Your task to perform on an android device: change the clock display to show seconds Image 0: 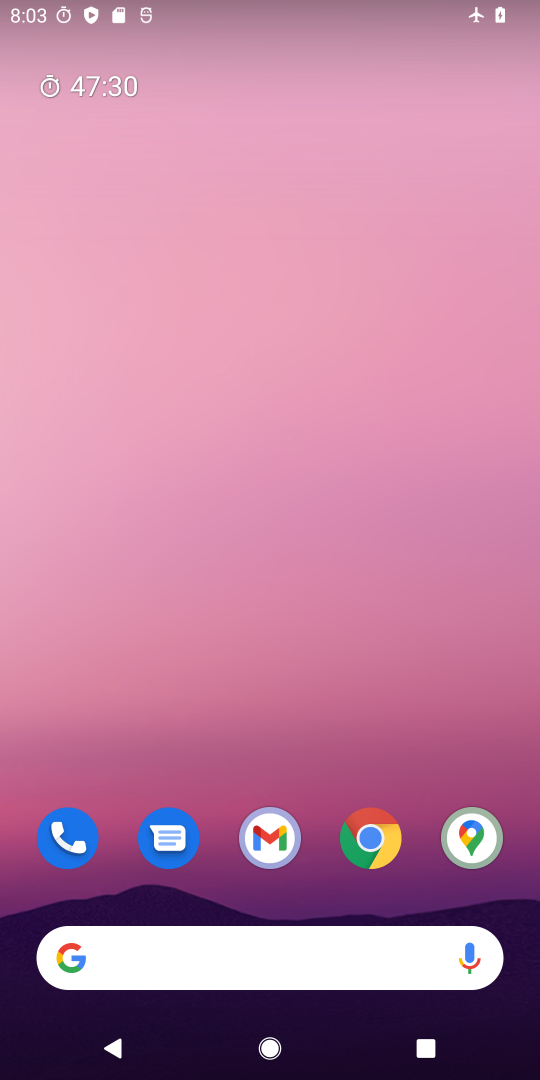
Step 0: drag from (307, 728) to (257, 8)
Your task to perform on an android device: change the clock display to show seconds Image 1: 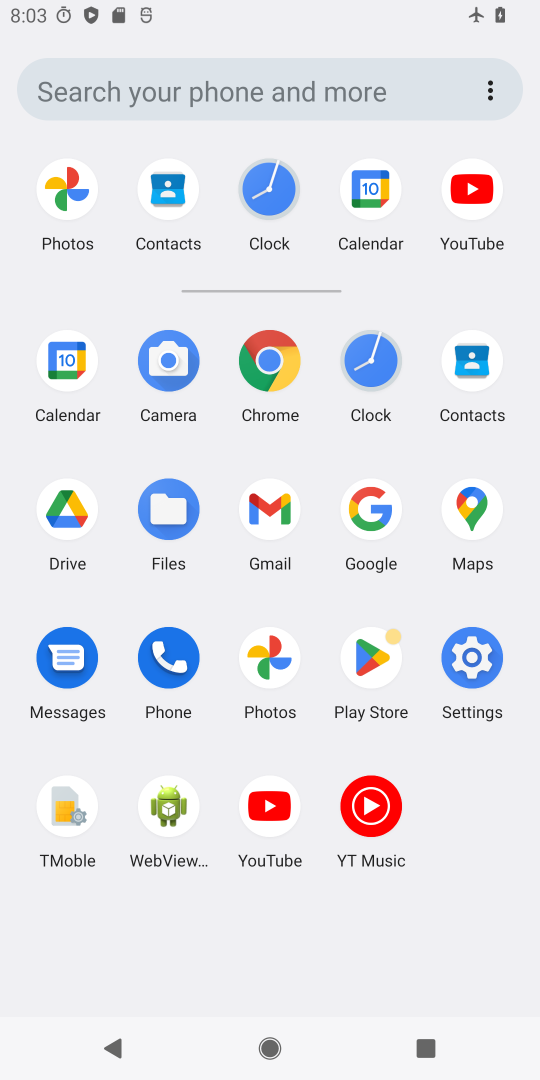
Step 1: click (374, 408)
Your task to perform on an android device: change the clock display to show seconds Image 2: 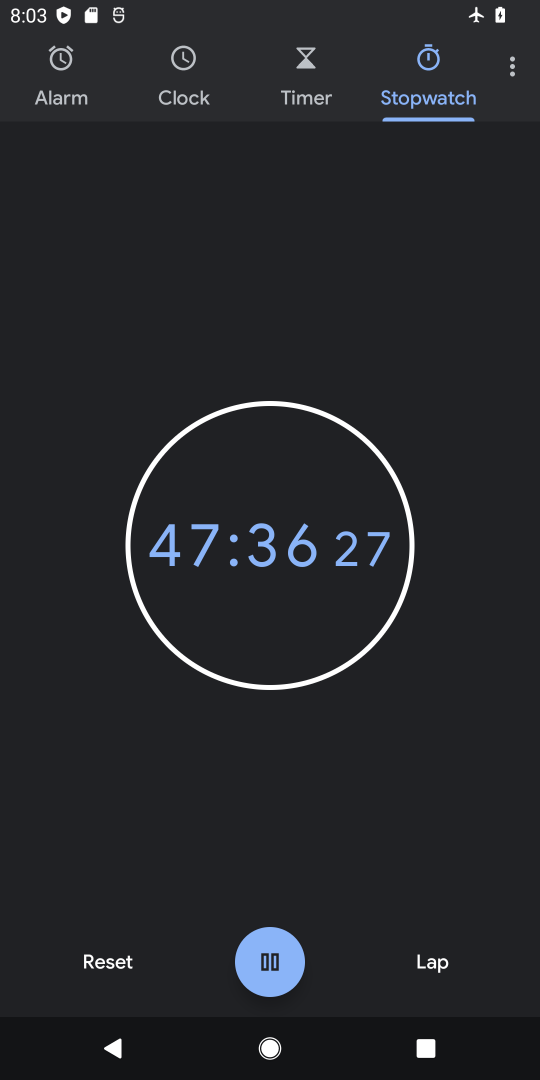
Step 2: click (516, 64)
Your task to perform on an android device: change the clock display to show seconds Image 3: 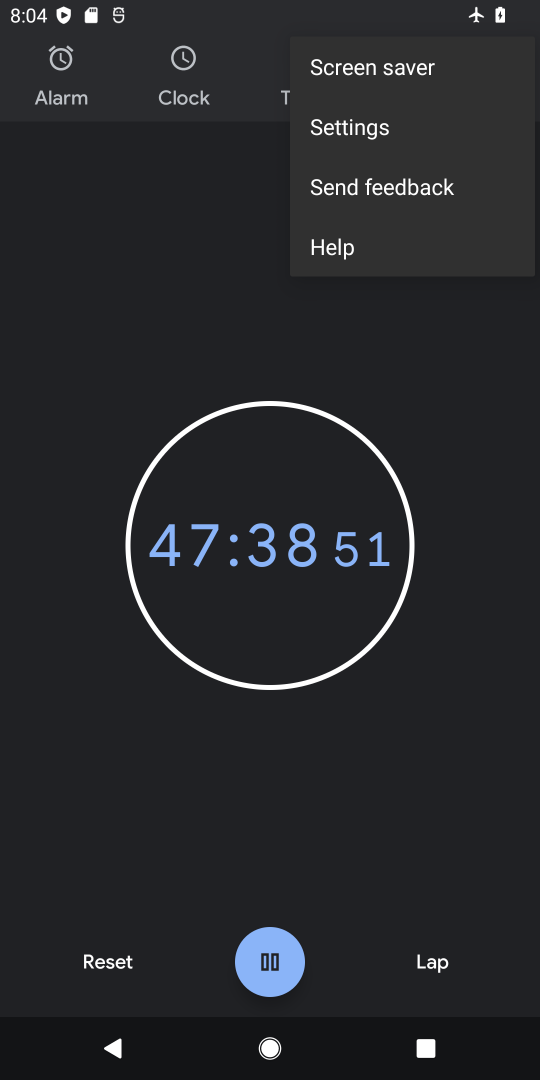
Step 3: click (399, 136)
Your task to perform on an android device: change the clock display to show seconds Image 4: 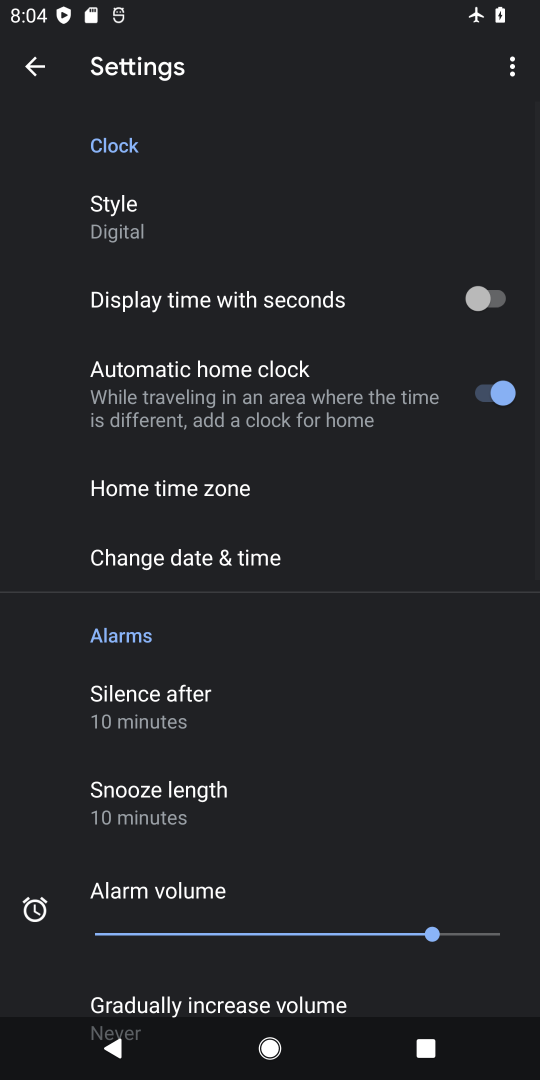
Step 4: click (208, 303)
Your task to perform on an android device: change the clock display to show seconds Image 5: 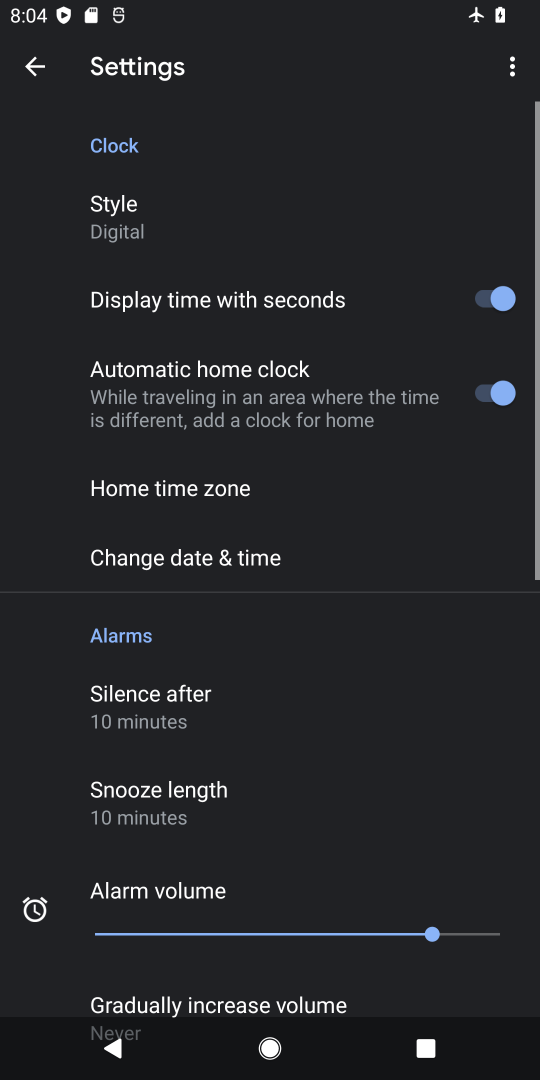
Step 5: task complete